Your task to perform on an android device: What's the weather going to be tomorrow? Image 0: 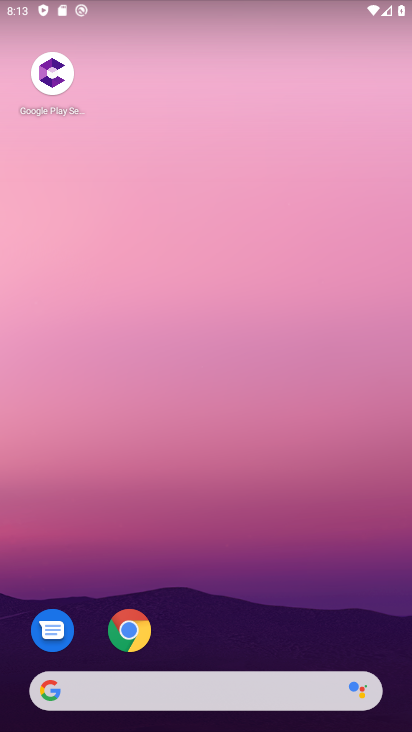
Step 0: drag from (203, 688) to (220, 356)
Your task to perform on an android device: What's the weather going to be tomorrow? Image 1: 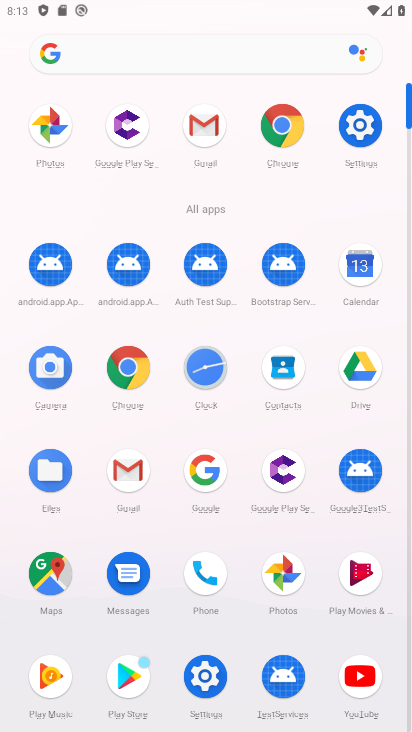
Step 1: click (203, 469)
Your task to perform on an android device: What's the weather going to be tomorrow? Image 2: 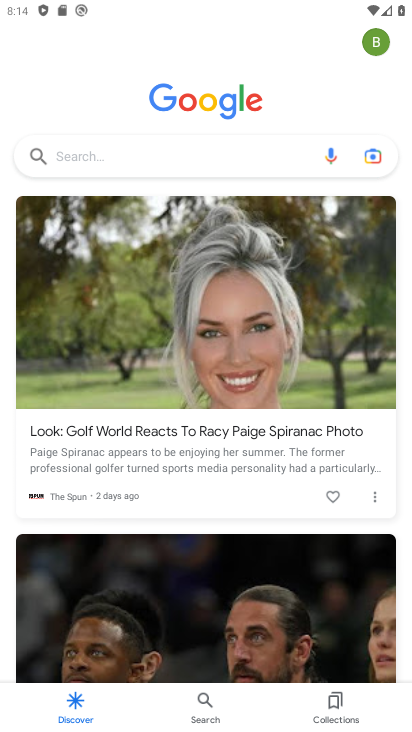
Step 2: click (193, 159)
Your task to perform on an android device: What's the weather going to be tomorrow? Image 3: 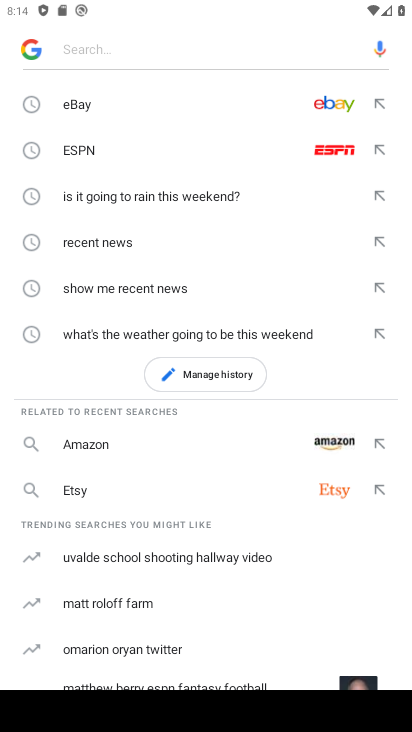
Step 3: type "What's the weather going to be tomorrow"
Your task to perform on an android device: What's the weather going to be tomorrow? Image 4: 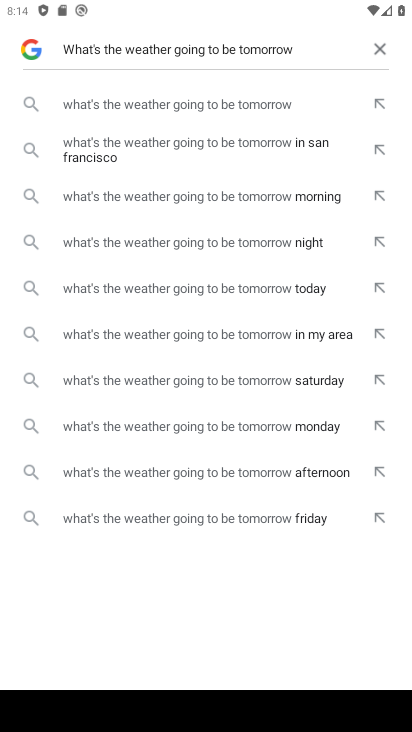
Step 4: click (260, 103)
Your task to perform on an android device: What's the weather going to be tomorrow? Image 5: 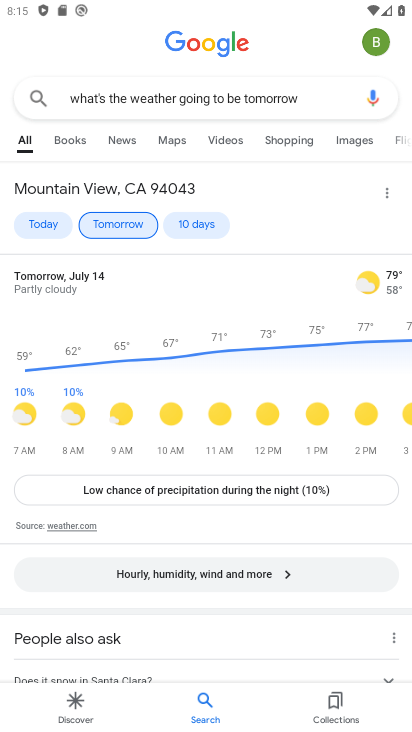
Step 5: task complete